Your task to perform on an android device: Open Yahoo.com Image 0: 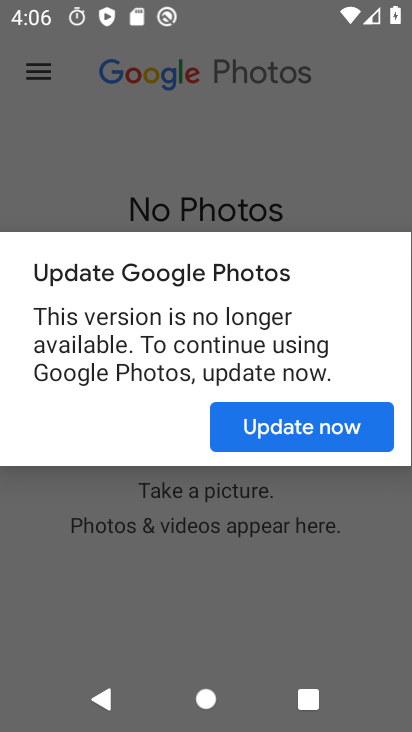
Step 0: press back button
Your task to perform on an android device: Open Yahoo.com Image 1: 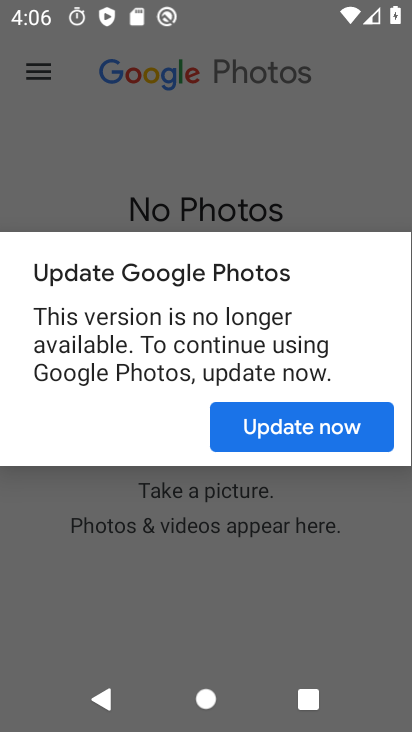
Step 1: press back button
Your task to perform on an android device: Open Yahoo.com Image 2: 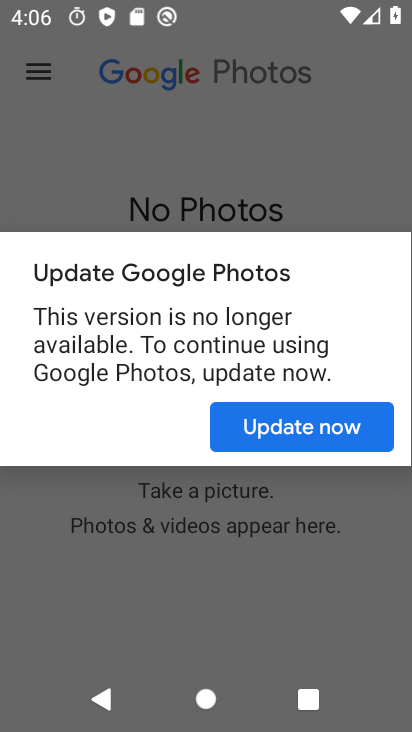
Step 2: press back button
Your task to perform on an android device: Open Yahoo.com Image 3: 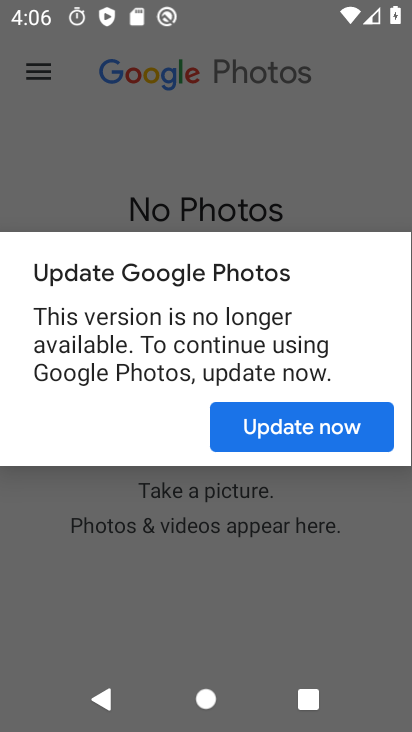
Step 3: press home button
Your task to perform on an android device: Open Yahoo.com Image 4: 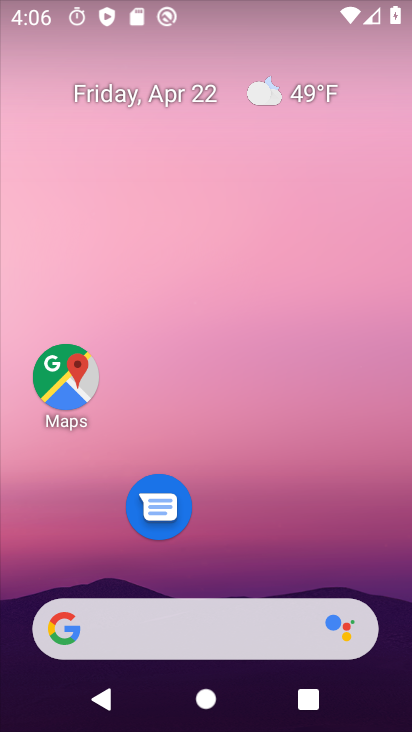
Step 4: drag from (216, 477) to (247, 95)
Your task to perform on an android device: Open Yahoo.com Image 5: 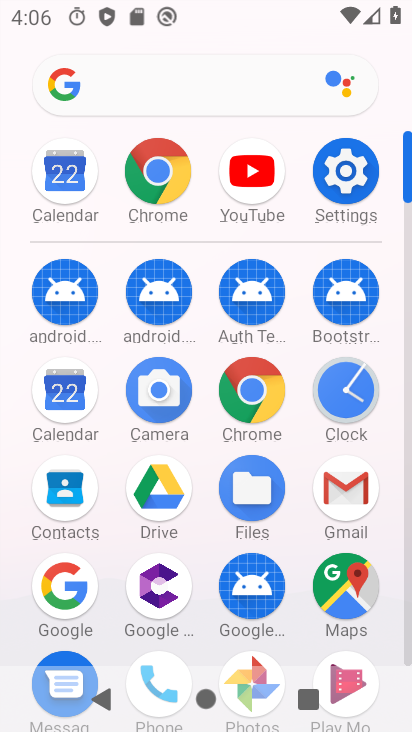
Step 5: click (154, 187)
Your task to perform on an android device: Open Yahoo.com Image 6: 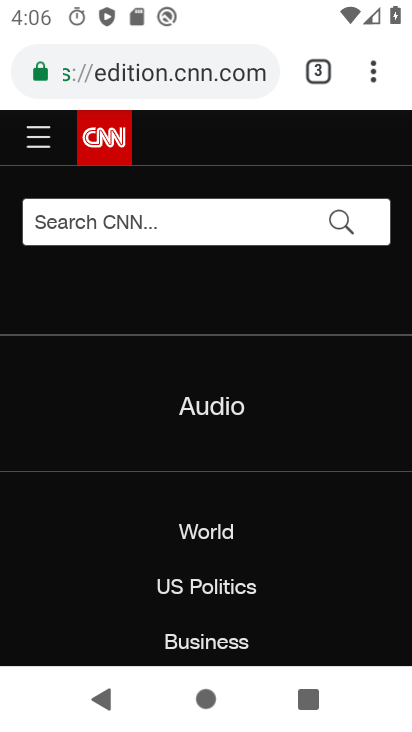
Step 6: click (327, 61)
Your task to perform on an android device: Open Yahoo.com Image 7: 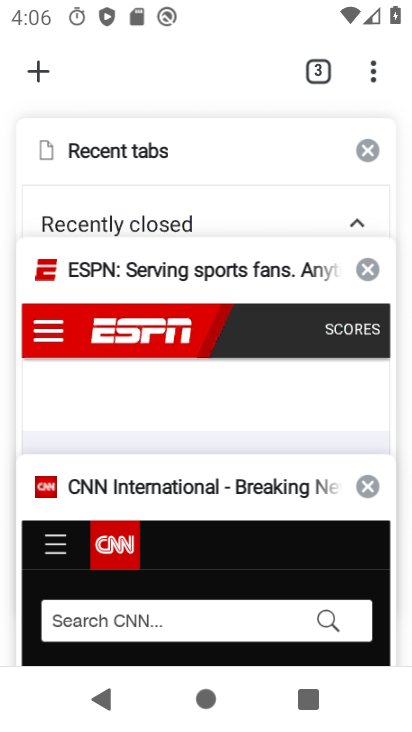
Step 7: click (36, 59)
Your task to perform on an android device: Open Yahoo.com Image 8: 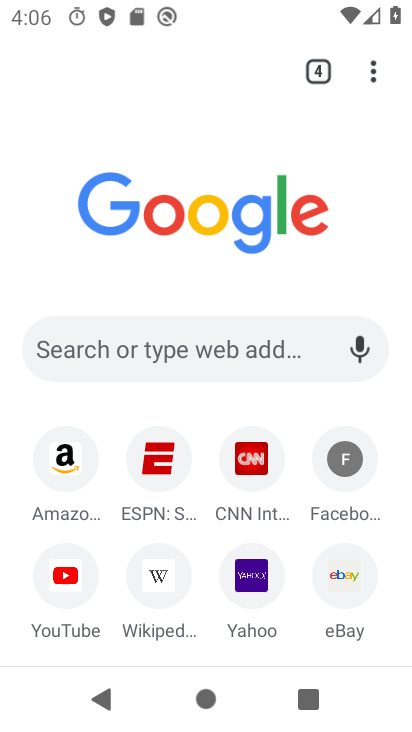
Step 8: click (232, 603)
Your task to perform on an android device: Open Yahoo.com Image 9: 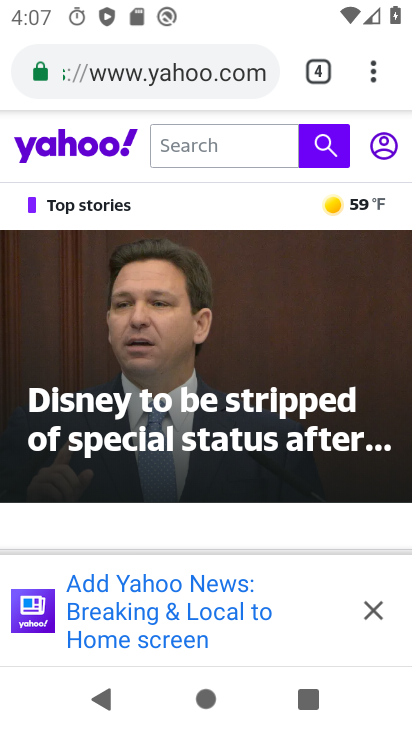
Step 9: task complete